Your task to perform on an android device: find which apps use the phone's location Image 0: 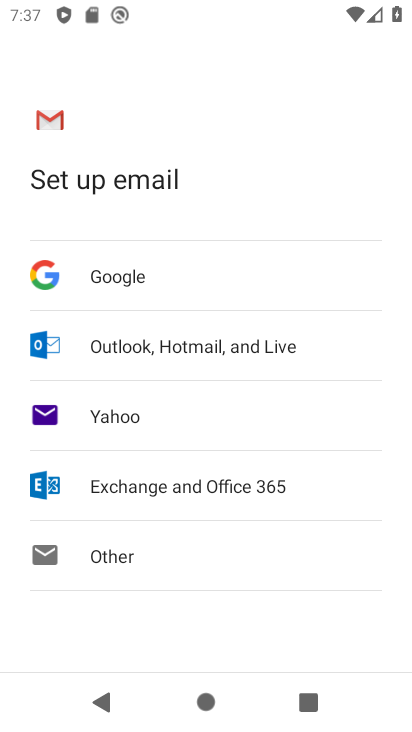
Step 0: press home button
Your task to perform on an android device: find which apps use the phone's location Image 1: 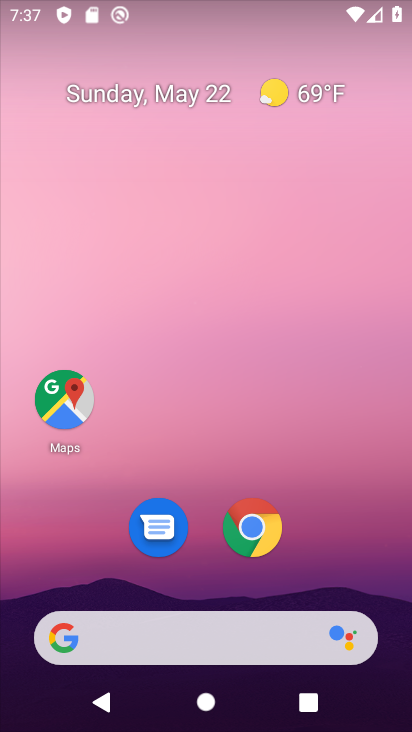
Step 1: drag from (204, 546) to (223, 45)
Your task to perform on an android device: find which apps use the phone's location Image 2: 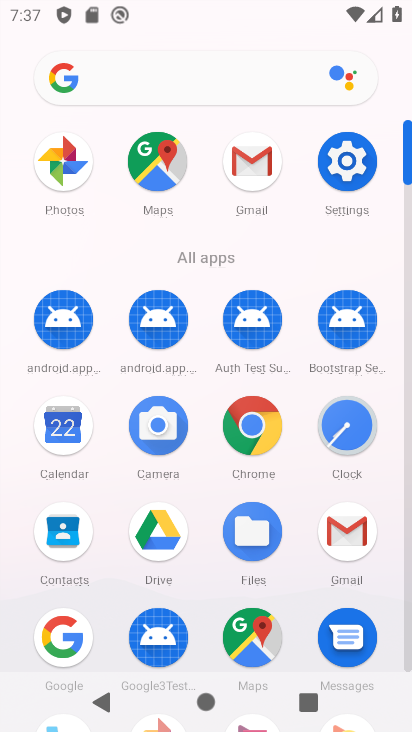
Step 2: click (350, 165)
Your task to perform on an android device: find which apps use the phone's location Image 3: 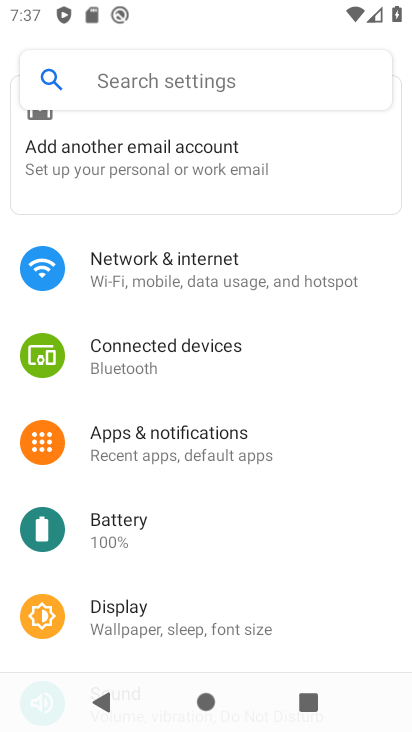
Step 3: drag from (177, 572) to (192, 98)
Your task to perform on an android device: find which apps use the phone's location Image 4: 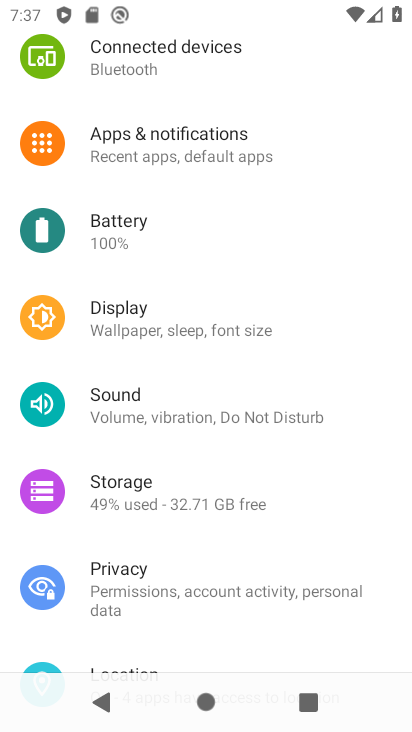
Step 4: drag from (153, 624) to (167, 64)
Your task to perform on an android device: find which apps use the phone's location Image 5: 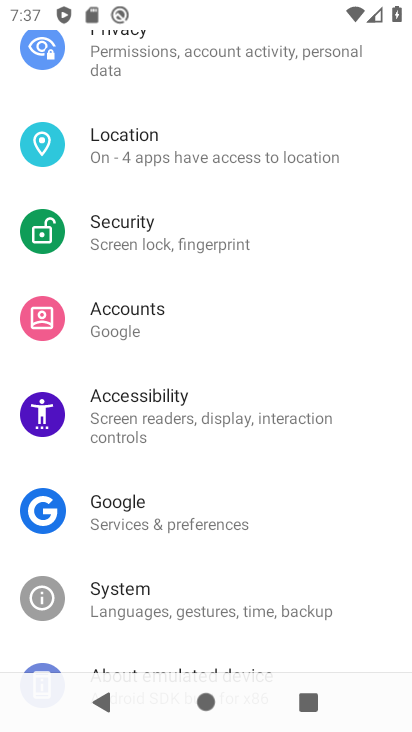
Step 5: click (180, 139)
Your task to perform on an android device: find which apps use the phone's location Image 6: 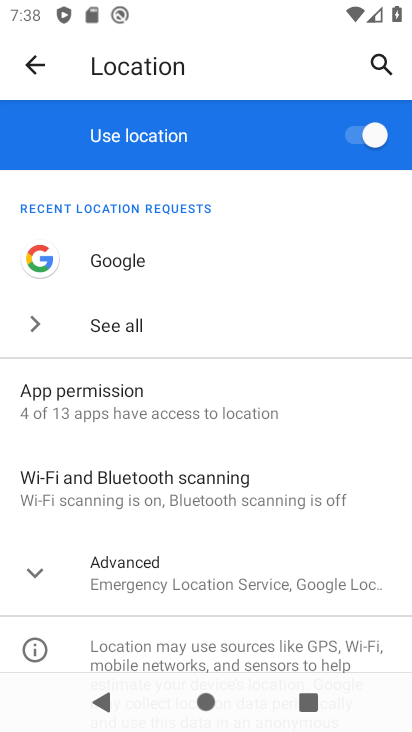
Step 6: click (150, 391)
Your task to perform on an android device: find which apps use the phone's location Image 7: 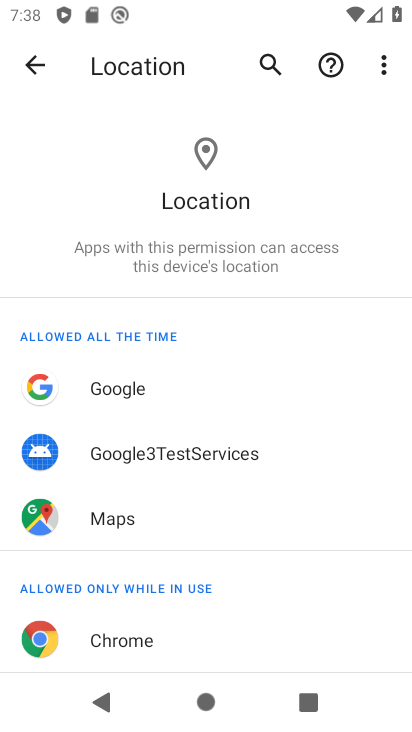
Step 7: task complete